Your task to perform on an android device: turn notification dots off Image 0: 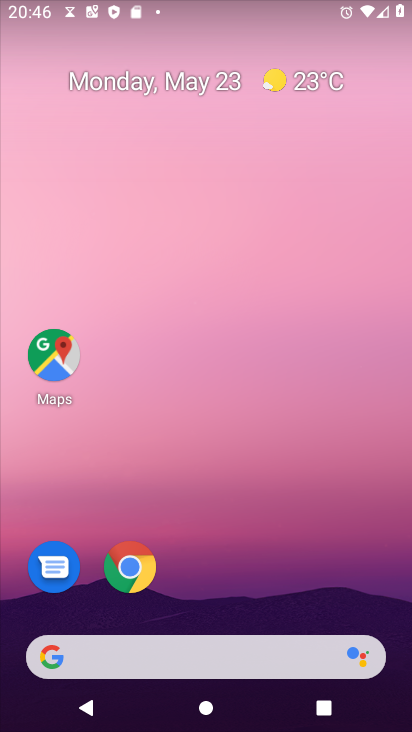
Step 0: drag from (215, 592) to (220, 258)
Your task to perform on an android device: turn notification dots off Image 1: 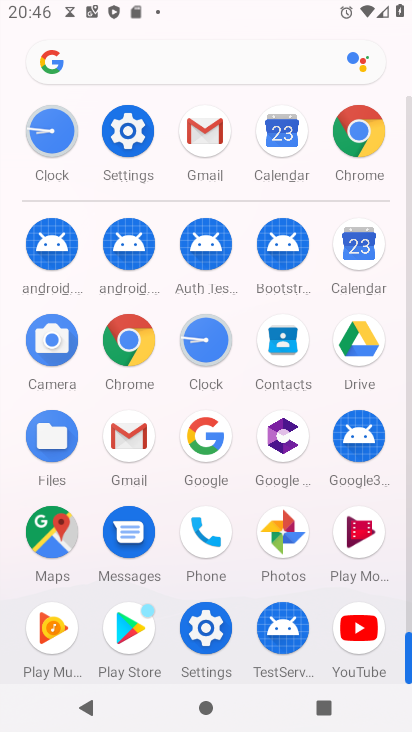
Step 1: click (130, 122)
Your task to perform on an android device: turn notification dots off Image 2: 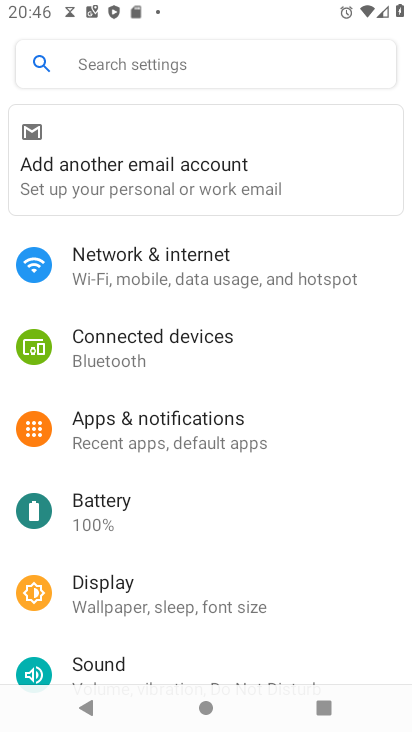
Step 2: click (173, 55)
Your task to perform on an android device: turn notification dots off Image 3: 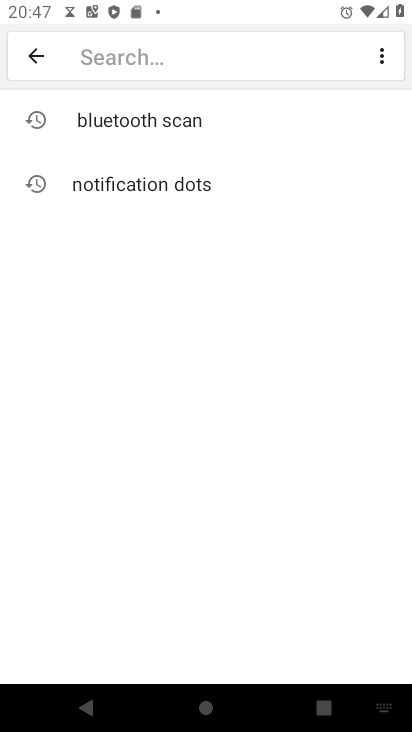
Step 3: click (172, 175)
Your task to perform on an android device: turn notification dots off Image 4: 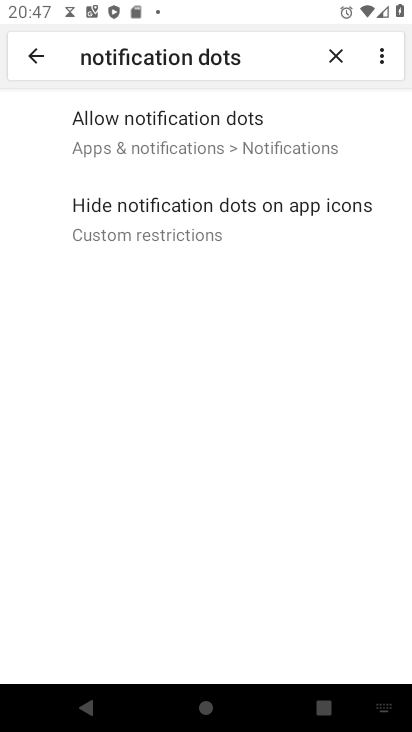
Step 4: click (157, 134)
Your task to perform on an android device: turn notification dots off Image 5: 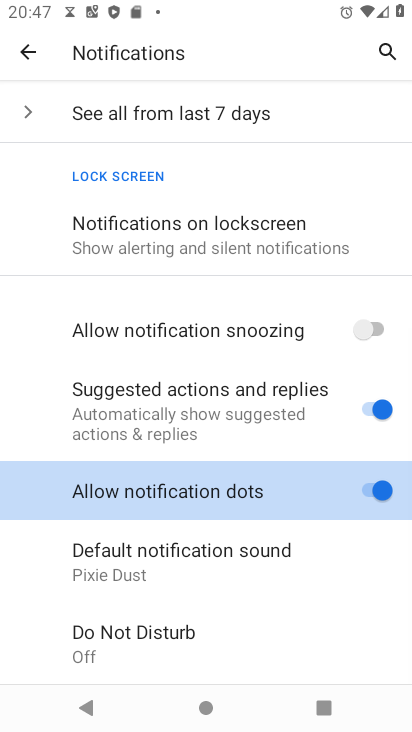
Step 5: click (361, 498)
Your task to perform on an android device: turn notification dots off Image 6: 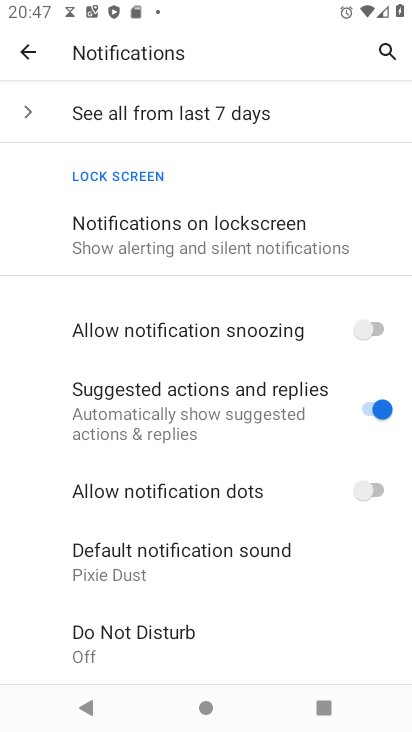
Step 6: task complete